Your task to perform on an android device: Open Yahoo.com Image 0: 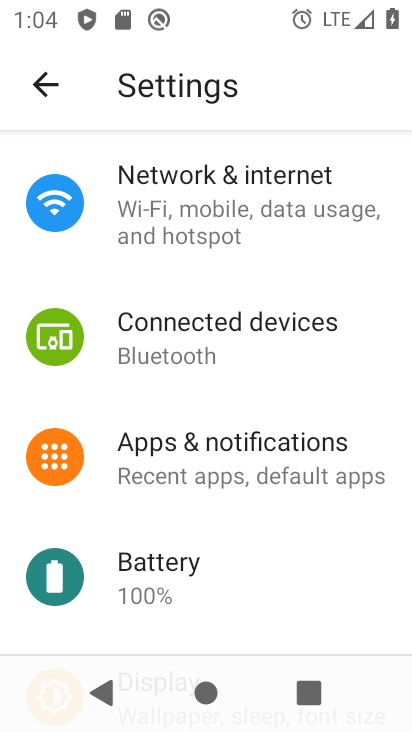
Step 0: press home button
Your task to perform on an android device: Open Yahoo.com Image 1: 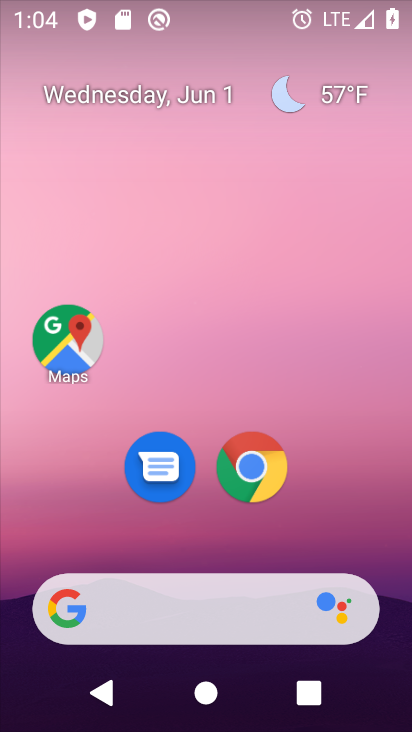
Step 1: drag from (379, 536) to (380, 161)
Your task to perform on an android device: Open Yahoo.com Image 2: 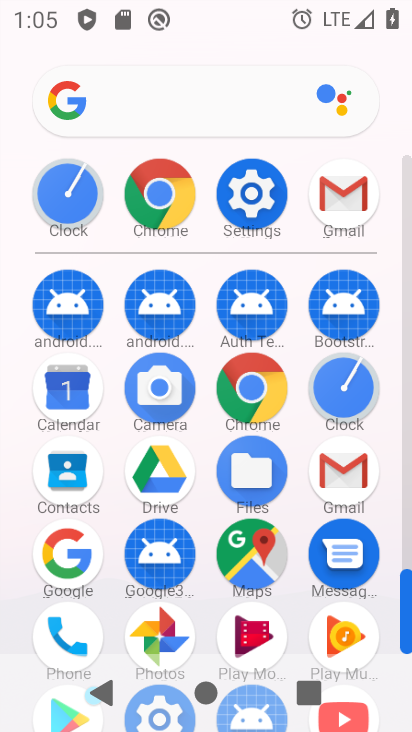
Step 2: click (258, 400)
Your task to perform on an android device: Open Yahoo.com Image 3: 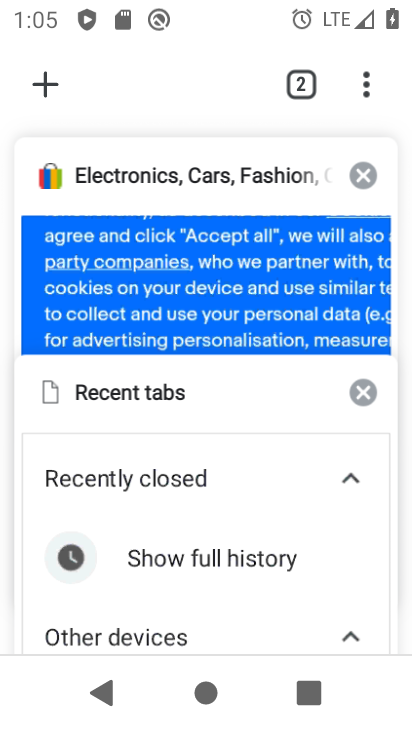
Step 3: press back button
Your task to perform on an android device: Open Yahoo.com Image 4: 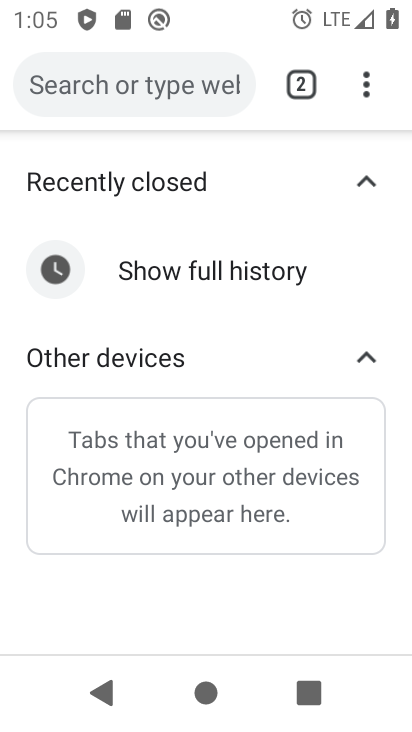
Step 4: press back button
Your task to perform on an android device: Open Yahoo.com Image 5: 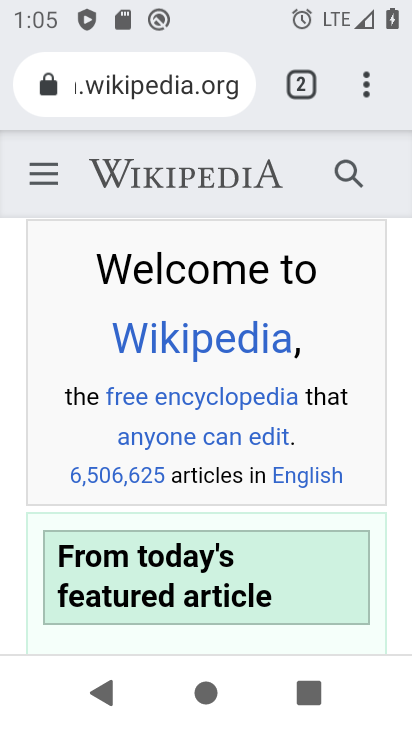
Step 5: press back button
Your task to perform on an android device: Open Yahoo.com Image 6: 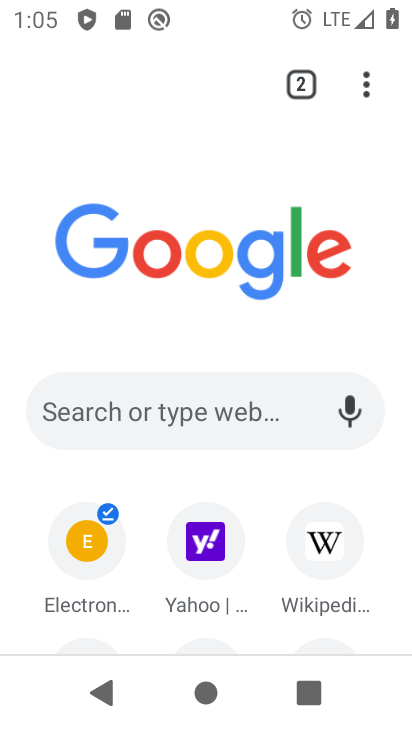
Step 6: click (214, 557)
Your task to perform on an android device: Open Yahoo.com Image 7: 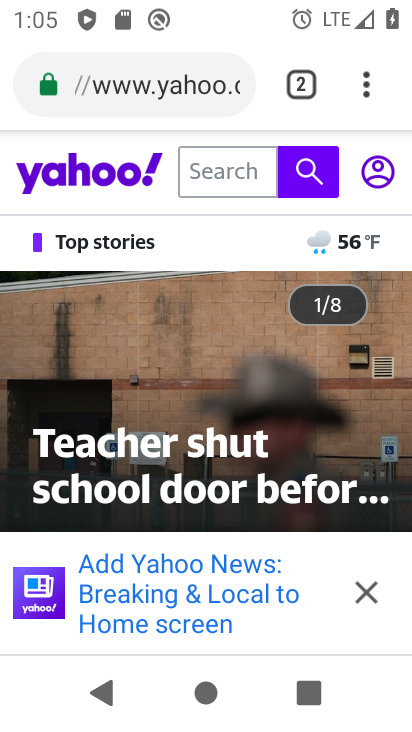
Step 7: task complete